Your task to perform on an android device: toggle show notifications on the lock screen Image 0: 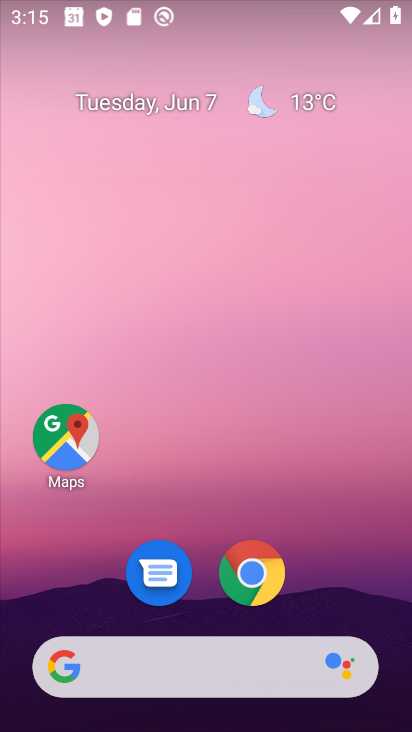
Step 0: drag from (333, 536) to (255, 191)
Your task to perform on an android device: toggle show notifications on the lock screen Image 1: 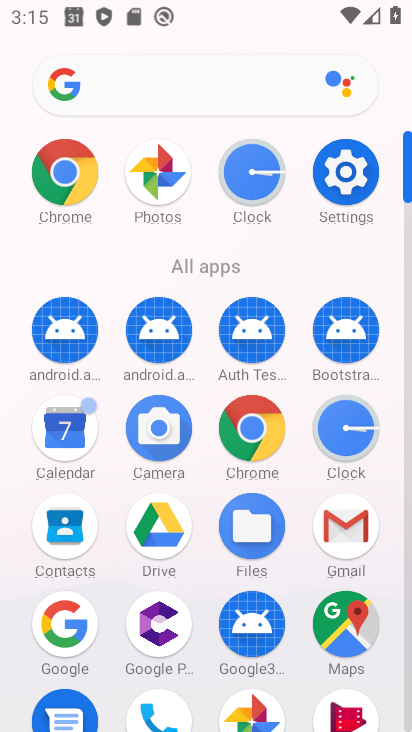
Step 1: click (351, 195)
Your task to perform on an android device: toggle show notifications on the lock screen Image 2: 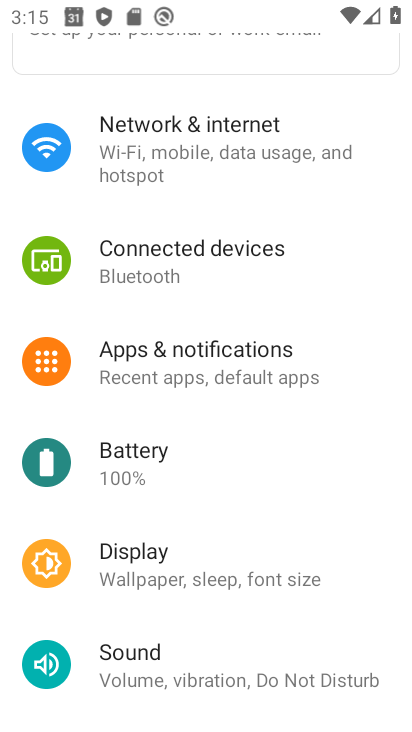
Step 2: click (273, 368)
Your task to perform on an android device: toggle show notifications on the lock screen Image 3: 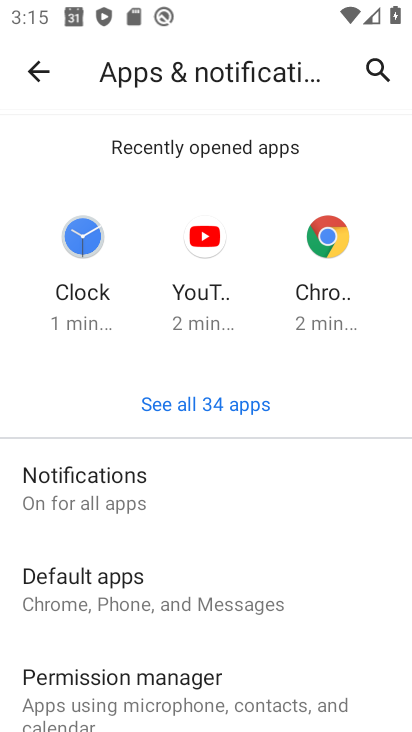
Step 3: click (226, 496)
Your task to perform on an android device: toggle show notifications on the lock screen Image 4: 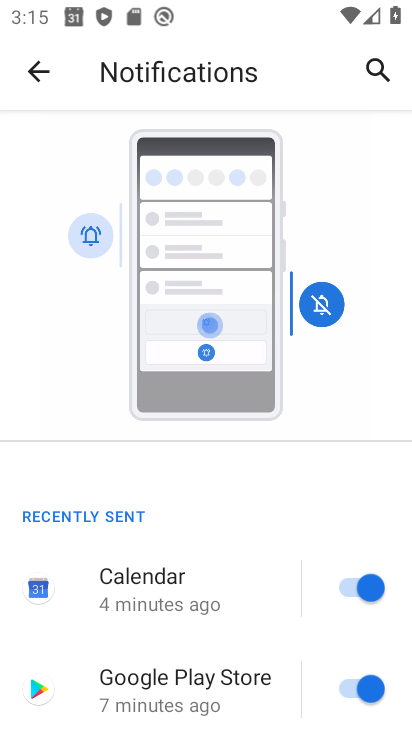
Step 4: drag from (255, 637) to (207, 111)
Your task to perform on an android device: toggle show notifications on the lock screen Image 5: 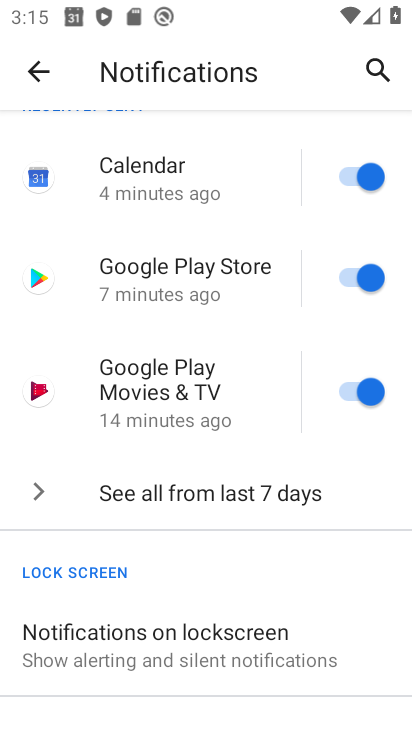
Step 5: drag from (246, 584) to (238, 244)
Your task to perform on an android device: toggle show notifications on the lock screen Image 6: 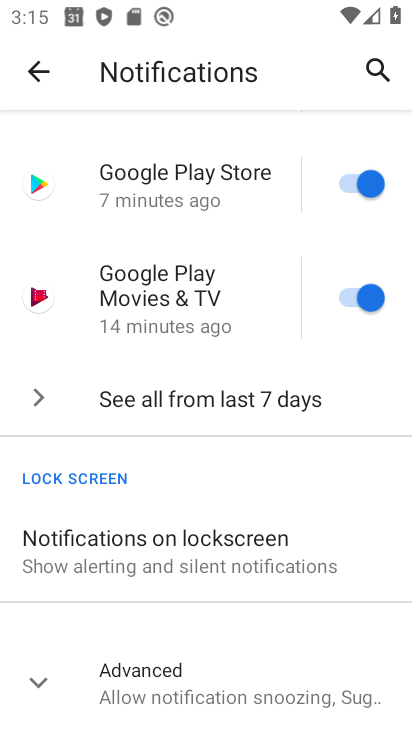
Step 6: click (210, 548)
Your task to perform on an android device: toggle show notifications on the lock screen Image 7: 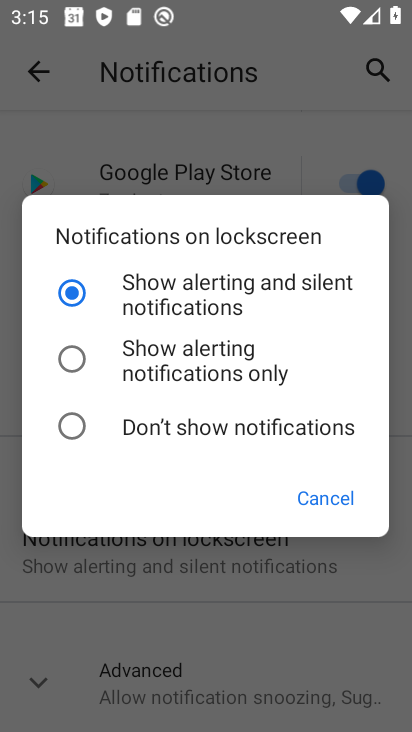
Step 7: click (187, 357)
Your task to perform on an android device: toggle show notifications on the lock screen Image 8: 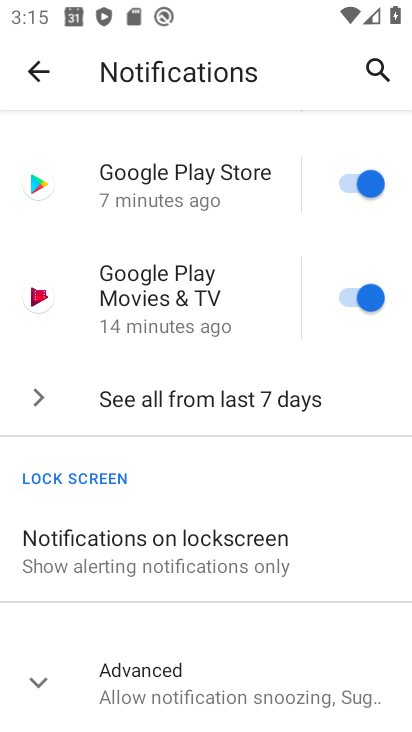
Step 8: task complete